Your task to perform on an android device: turn off notifications in google photos Image 0: 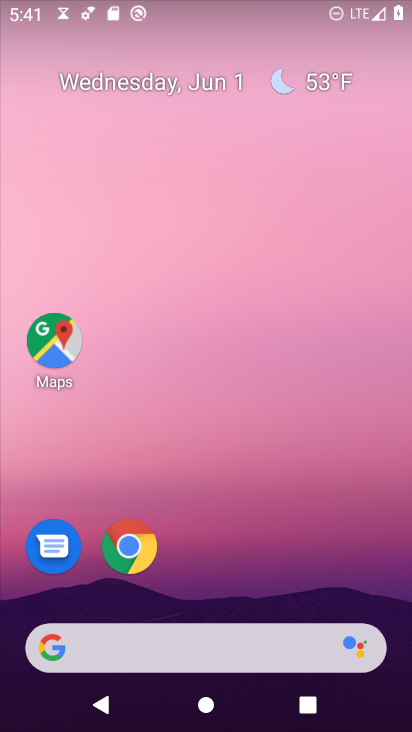
Step 0: drag from (251, 478) to (185, 8)
Your task to perform on an android device: turn off notifications in google photos Image 1: 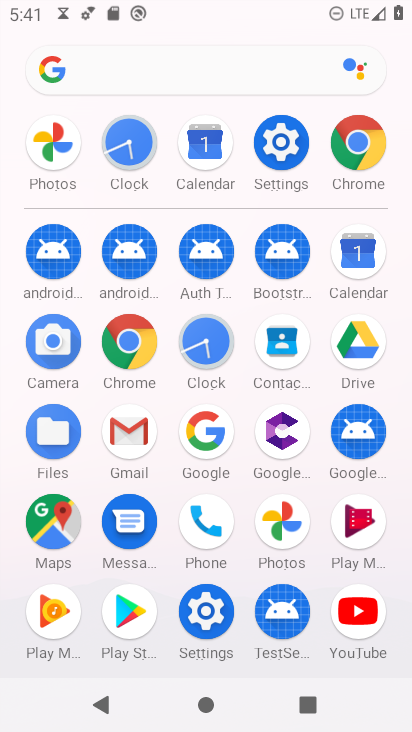
Step 1: click (288, 516)
Your task to perform on an android device: turn off notifications in google photos Image 2: 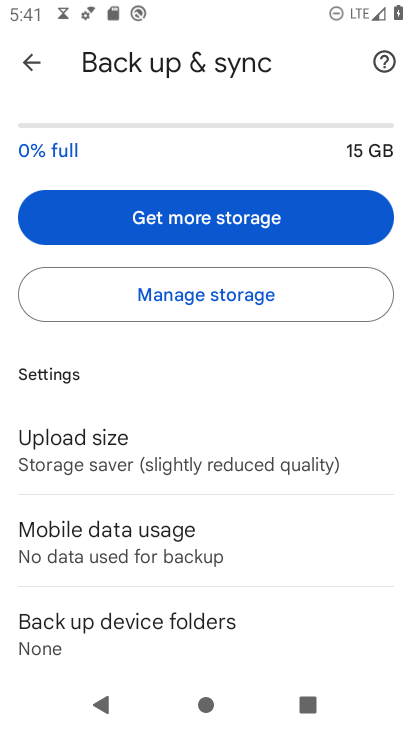
Step 2: click (30, 59)
Your task to perform on an android device: turn off notifications in google photos Image 3: 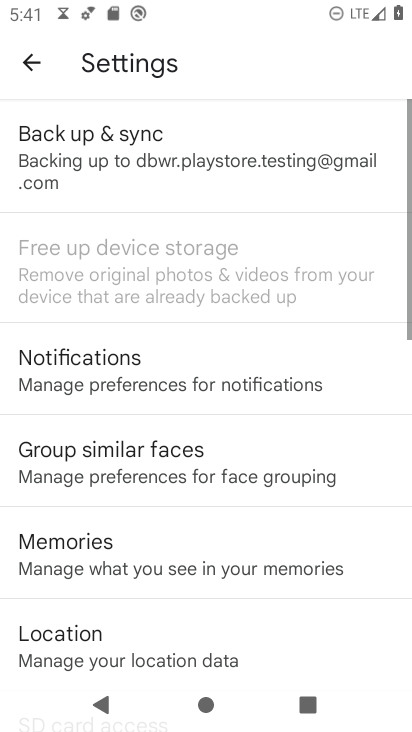
Step 3: click (34, 60)
Your task to perform on an android device: turn off notifications in google photos Image 4: 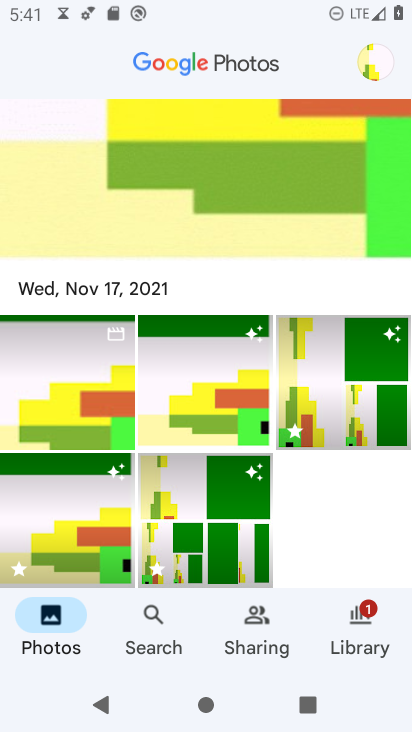
Step 4: click (366, 51)
Your task to perform on an android device: turn off notifications in google photos Image 5: 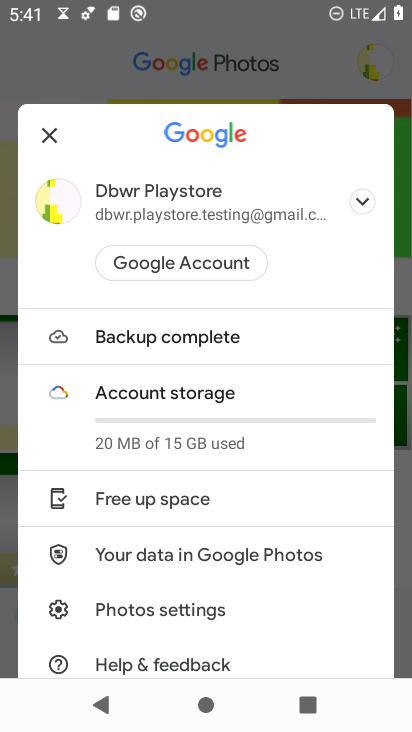
Step 5: drag from (302, 618) to (326, 301)
Your task to perform on an android device: turn off notifications in google photos Image 6: 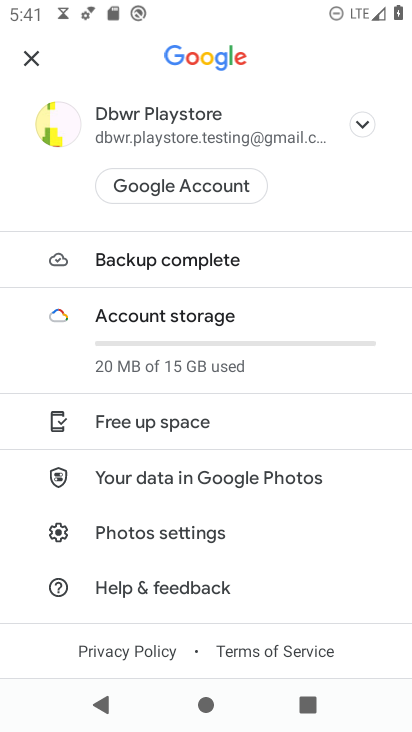
Step 6: click (186, 534)
Your task to perform on an android device: turn off notifications in google photos Image 7: 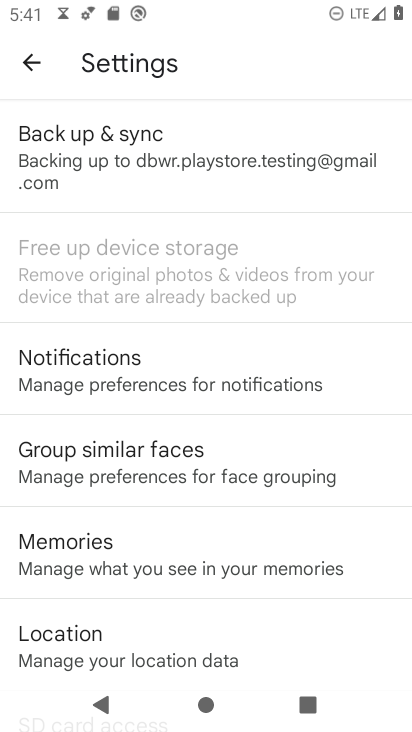
Step 7: drag from (163, 546) to (204, 115)
Your task to perform on an android device: turn off notifications in google photos Image 8: 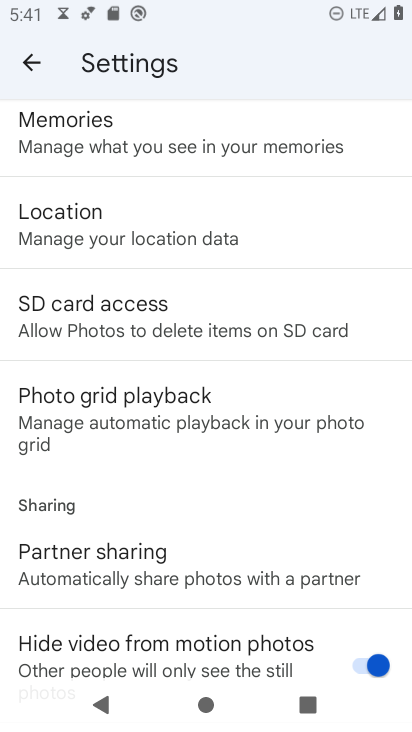
Step 8: drag from (199, 582) to (252, 192)
Your task to perform on an android device: turn off notifications in google photos Image 9: 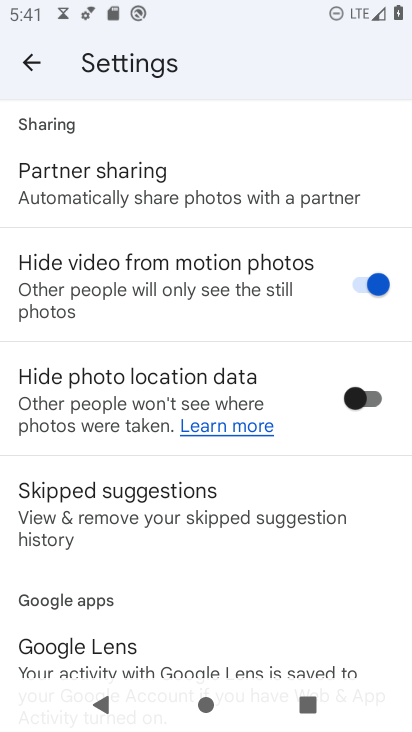
Step 9: drag from (211, 622) to (228, 142)
Your task to perform on an android device: turn off notifications in google photos Image 10: 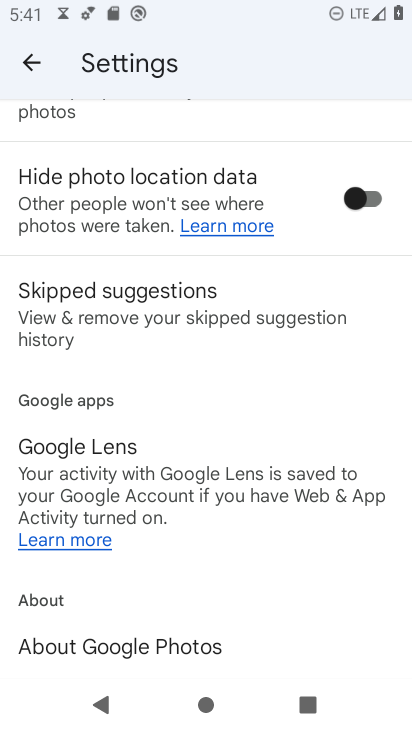
Step 10: drag from (218, 183) to (212, 632)
Your task to perform on an android device: turn off notifications in google photos Image 11: 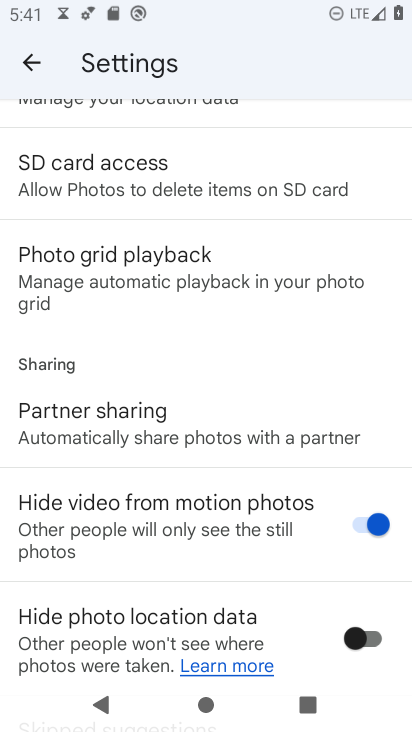
Step 11: drag from (209, 245) to (183, 609)
Your task to perform on an android device: turn off notifications in google photos Image 12: 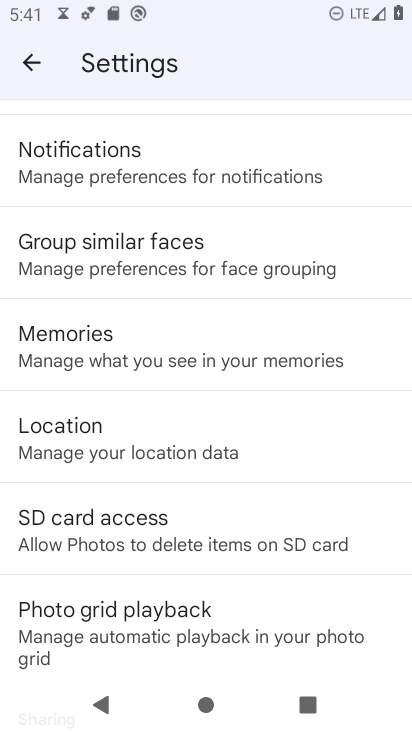
Step 12: drag from (194, 233) to (204, 588)
Your task to perform on an android device: turn off notifications in google photos Image 13: 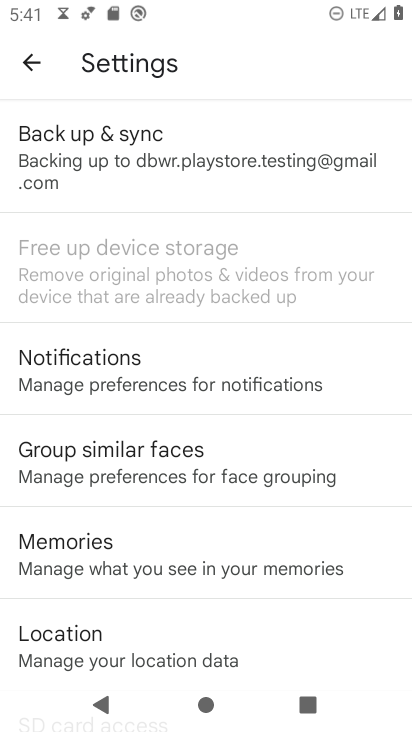
Step 13: click (136, 355)
Your task to perform on an android device: turn off notifications in google photos Image 14: 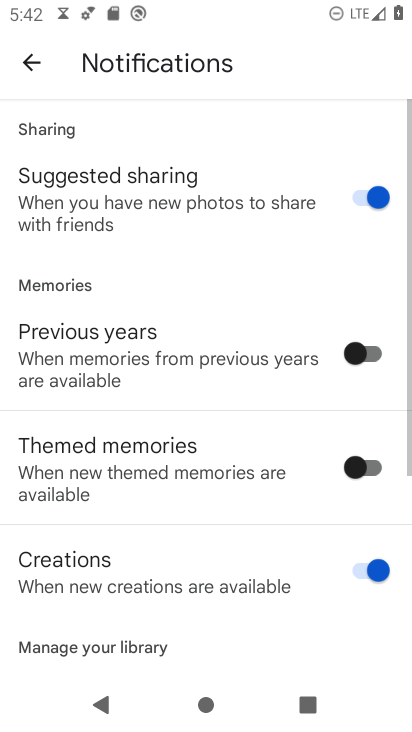
Step 14: drag from (218, 572) to (267, 135)
Your task to perform on an android device: turn off notifications in google photos Image 15: 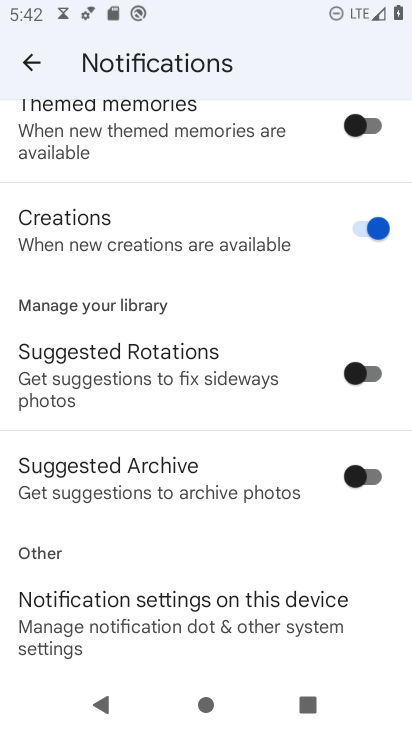
Step 15: drag from (250, 538) to (278, 162)
Your task to perform on an android device: turn off notifications in google photos Image 16: 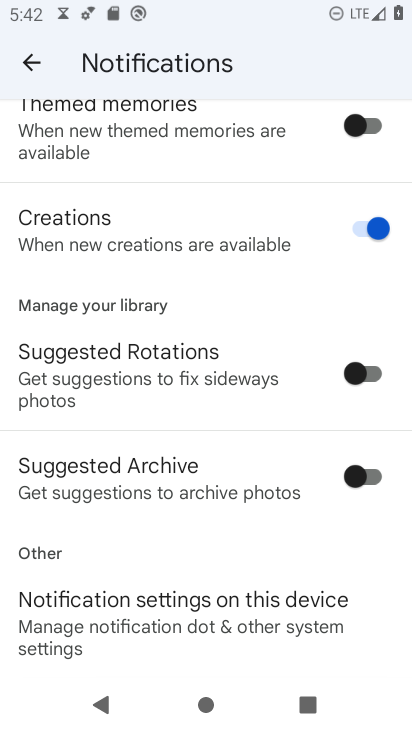
Step 16: click (191, 599)
Your task to perform on an android device: turn off notifications in google photos Image 17: 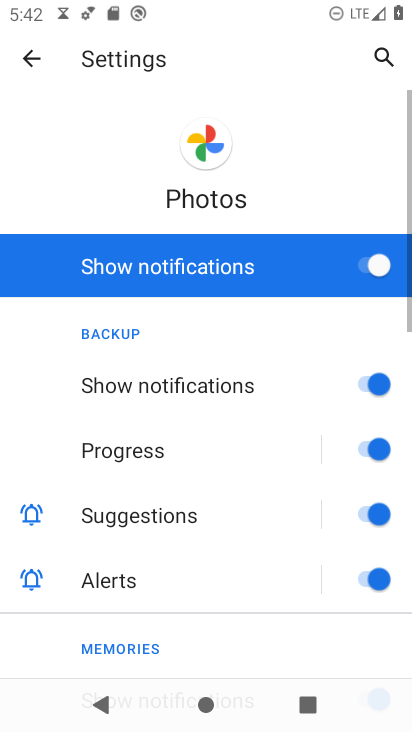
Step 17: click (378, 250)
Your task to perform on an android device: turn off notifications in google photos Image 18: 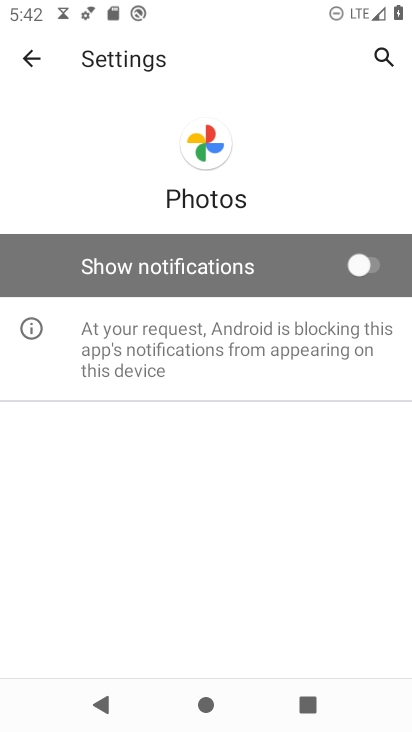
Step 18: task complete